Your task to perform on an android device: toggle notification dots Image 0: 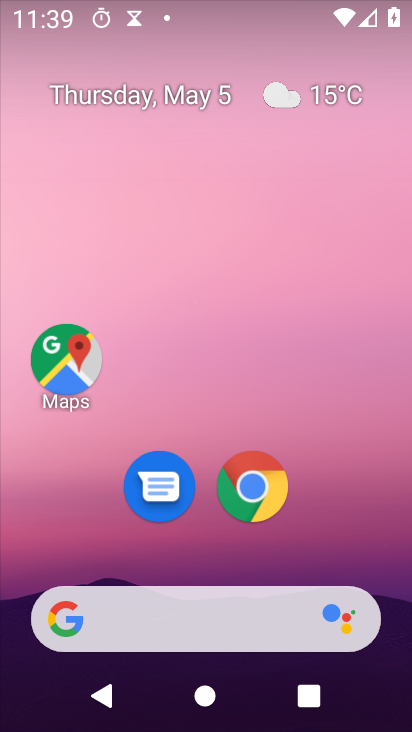
Step 0: drag from (366, 556) to (122, 84)
Your task to perform on an android device: toggle notification dots Image 1: 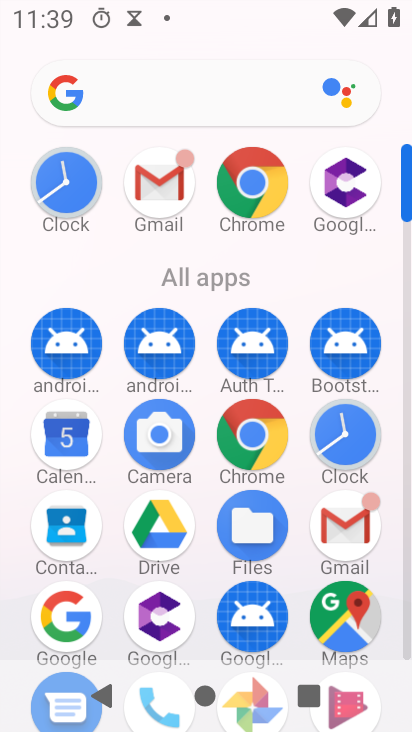
Step 1: drag from (280, 518) to (221, 67)
Your task to perform on an android device: toggle notification dots Image 2: 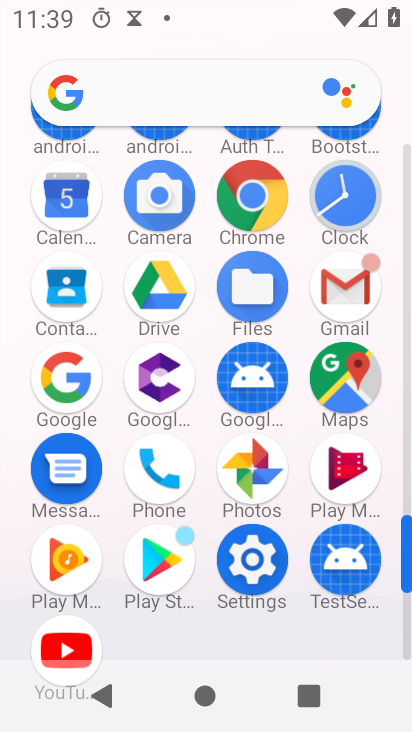
Step 2: drag from (293, 476) to (226, 134)
Your task to perform on an android device: toggle notification dots Image 3: 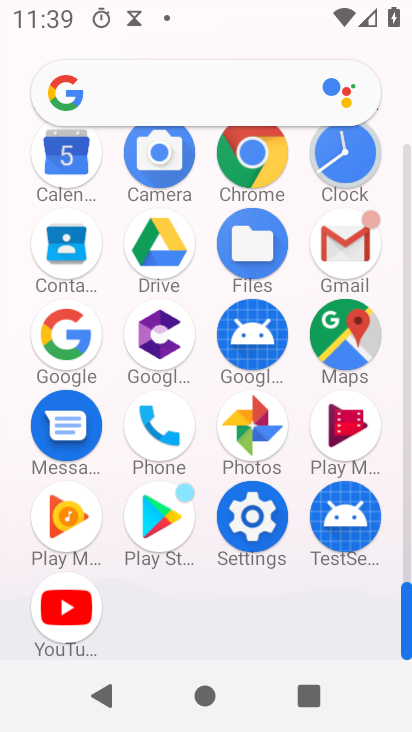
Step 3: click (262, 529)
Your task to perform on an android device: toggle notification dots Image 4: 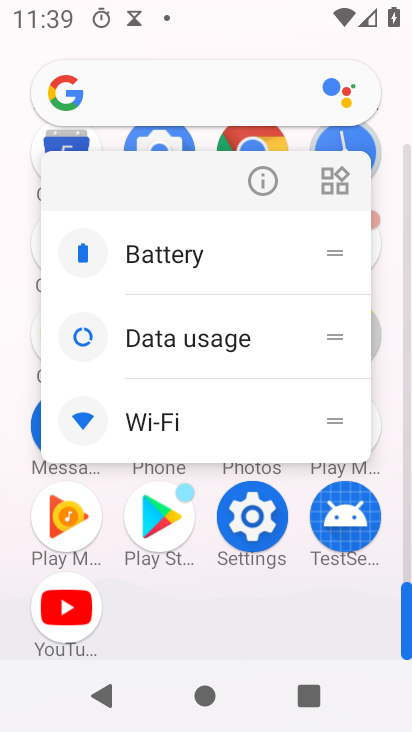
Step 4: click (253, 523)
Your task to perform on an android device: toggle notification dots Image 5: 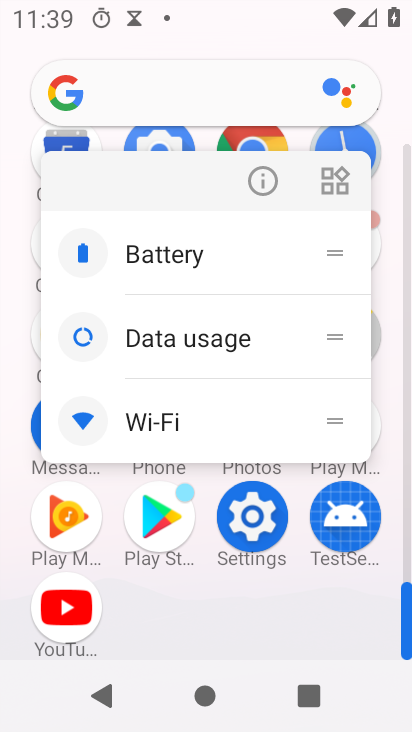
Step 5: click (253, 523)
Your task to perform on an android device: toggle notification dots Image 6: 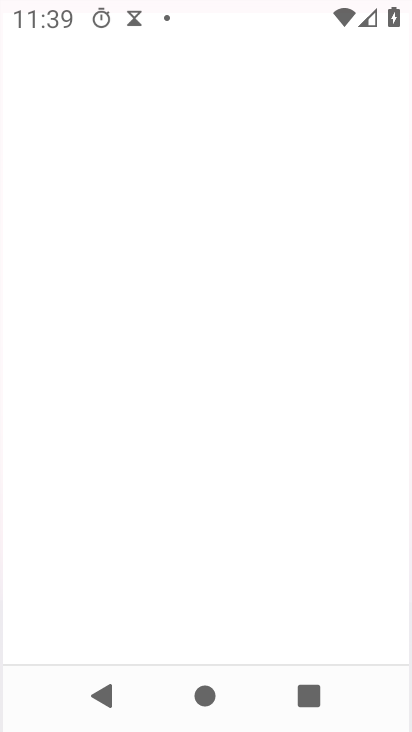
Step 6: click (252, 526)
Your task to perform on an android device: toggle notification dots Image 7: 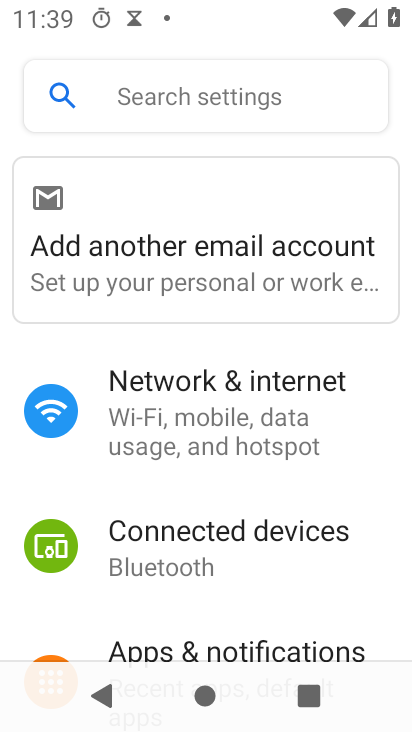
Step 7: click (182, 630)
Your task to perform on an android device: toggle notification dots Image 8: 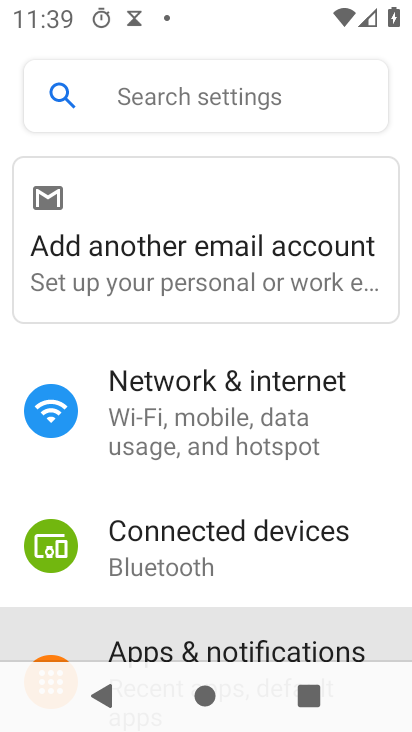
Step 8: click (191, 647)
Your task to perform on an android device: toggle notification dots Image 9: 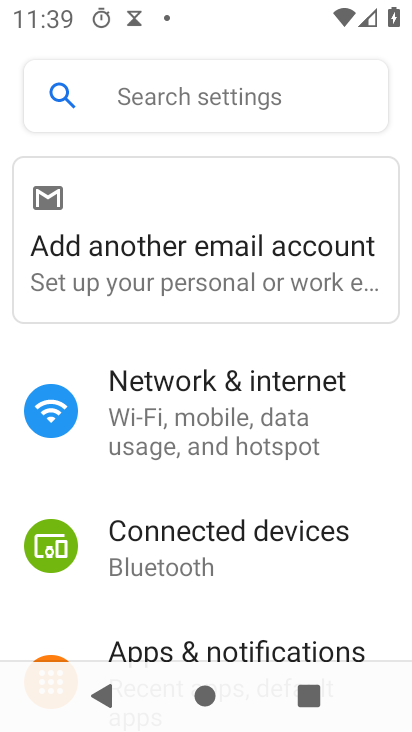
Step 9: drag from (272, 556) to (197, 177)
Your task to perform on an android device: toggle notification dots Image 10: 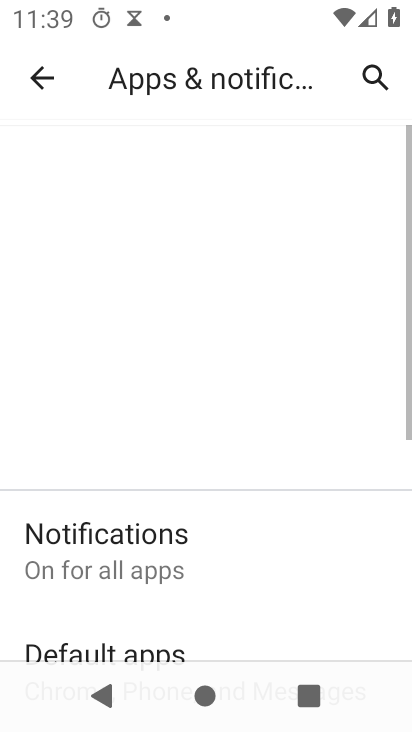
Step 10: drag from (221, 566) to (109, 192)
Your task to perform on an android device: toggle notification dots Image 11: 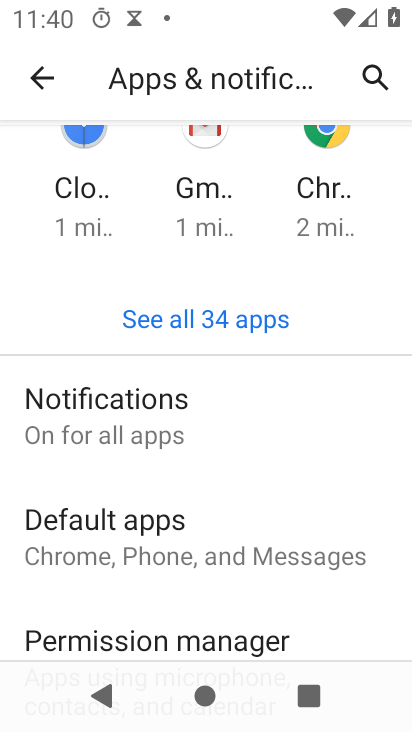
Step 11: drag from (250, 547) to (55, 217)
Your task to perform on an android device: toggle notification dots Image 12: 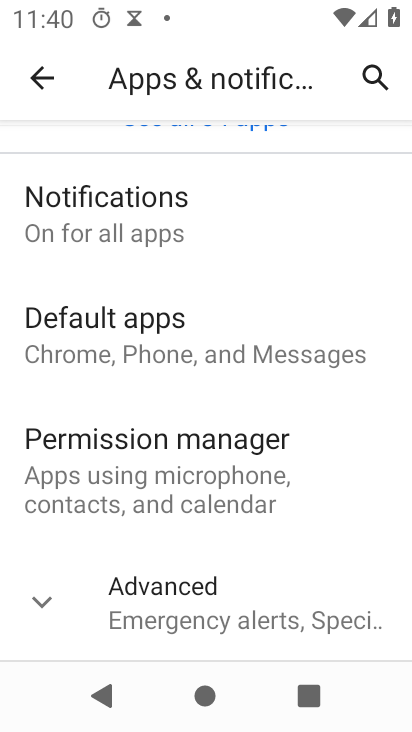
Step 12: drag from (246, 523) to (138, 126)
Your task to perform on an android device: toggle notification dots Image 13: 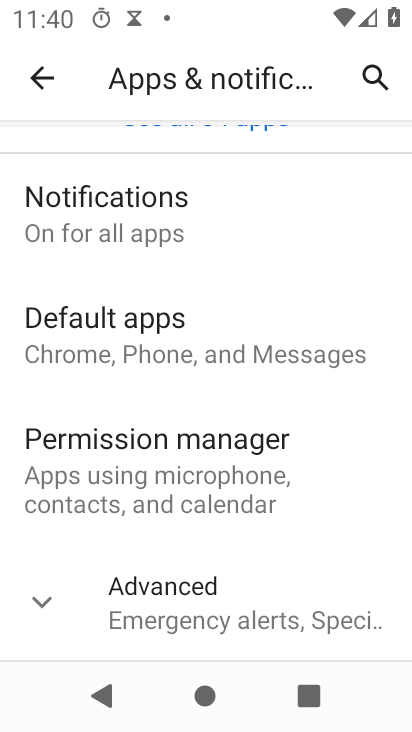
Step 13: click (181, 602)
Your task to perform on an android device: toggle notification dots Image 14: 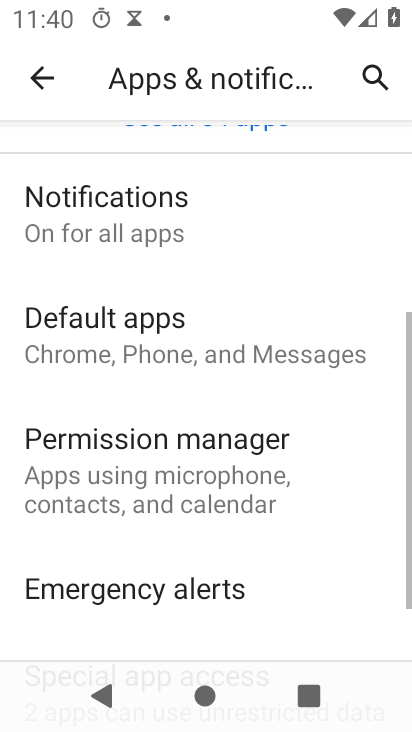
Step 14: drag from (255, 593) to (138, 141)
Your task to perform on an android device: toggle notification dots Image 15: 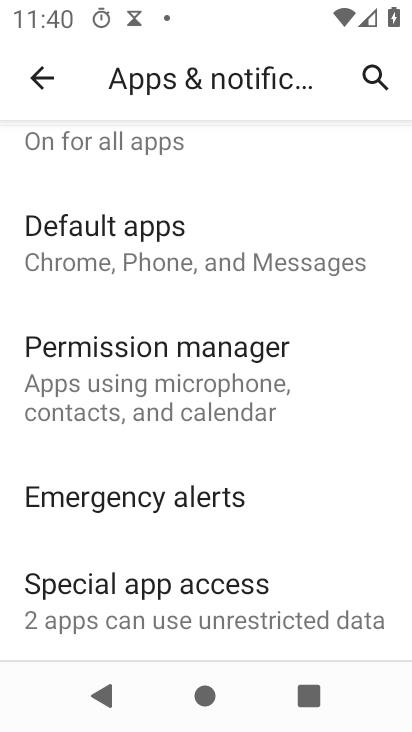
Step 15: drag from (81, 391) to (44, 653)
Your task to perform on an android device: toggle notification dots Image 16: 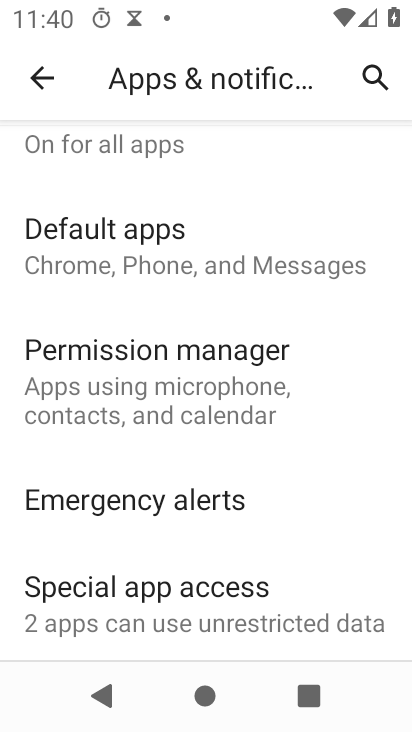
Step 16: drag from (196, 257) to (201, 528)
Your task to perform on an android device: toggle notification dots Image 17: 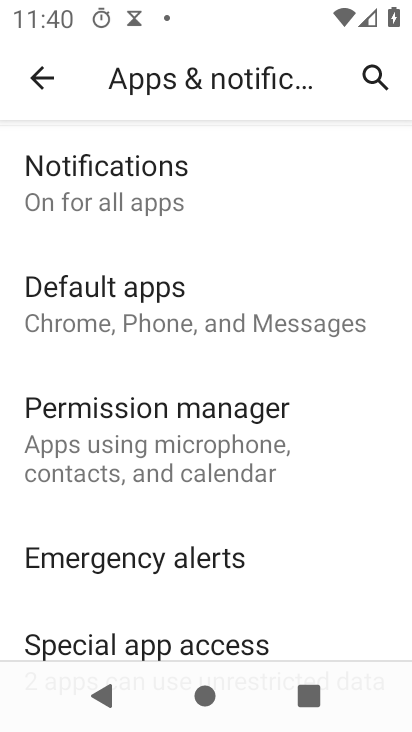
Step 17: click (114, 192)
Your task to perform on an android device: toggle notification dots Image 18: 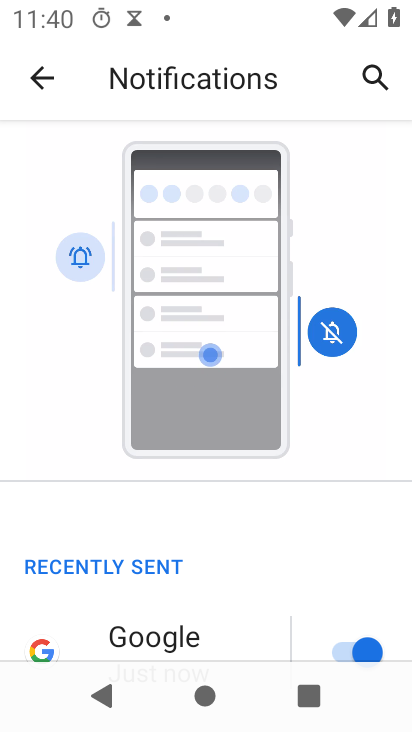
Step 18: drag from (232, 582) to (101, 154)
Your task to perform on an android device: toggle notification dots Image 19: 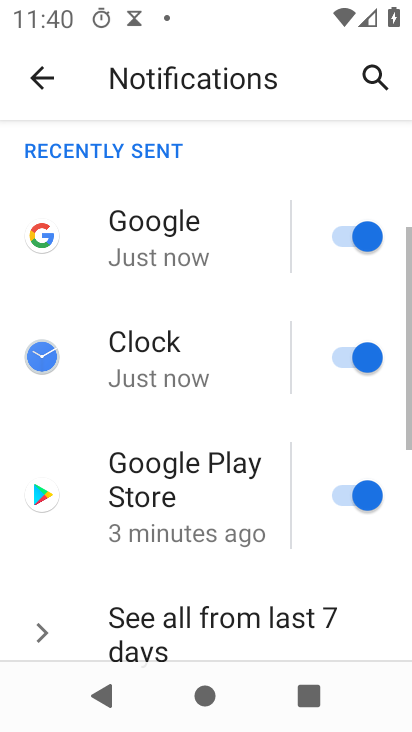
Step 19: drag from (286, 559) to (194, 118)
Your task to perform on an android device: toggle notification dots Image 20: 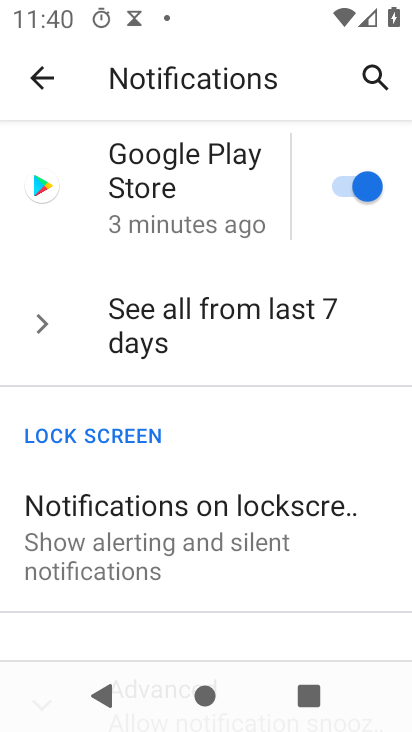
Step 20: drag from (204, 403) to (223, 107)
Your task to perform on an android device: toggle notification dots Image 21: 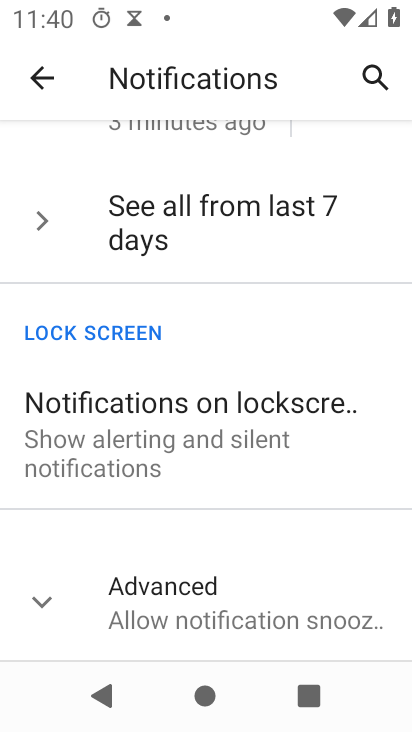
Step 21: click (193, 603)
Your task to perform on an android device: toggle notification dots Image 22: 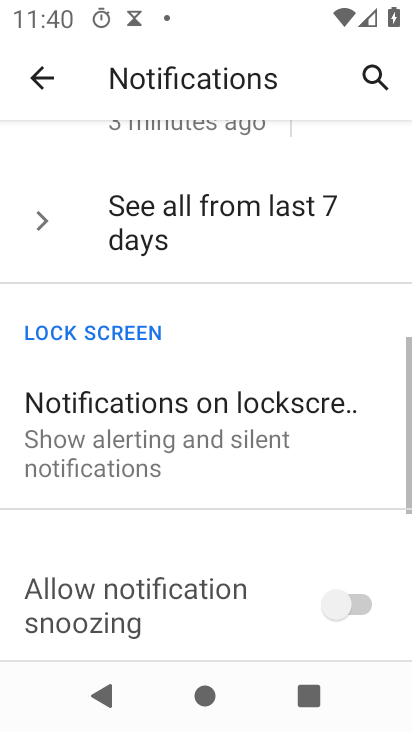
Step 22: click (193, 603)
Your task to perform on an android device: toggle notification dots Image 23: 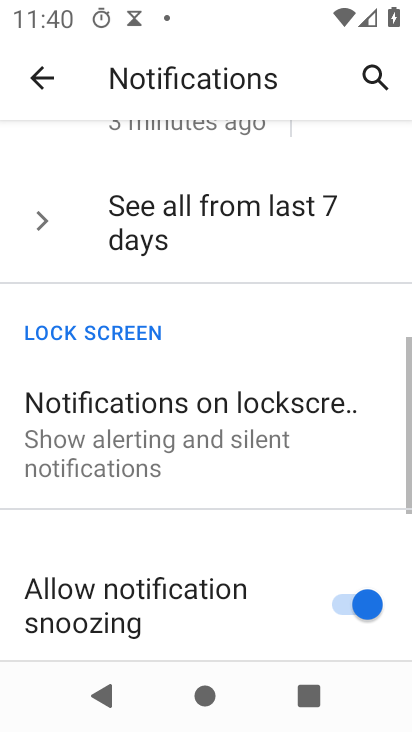
Step 23: drag from (265, 584) to (194, 133)
Your task to perform on an android device: toggle notification dots Image 24: 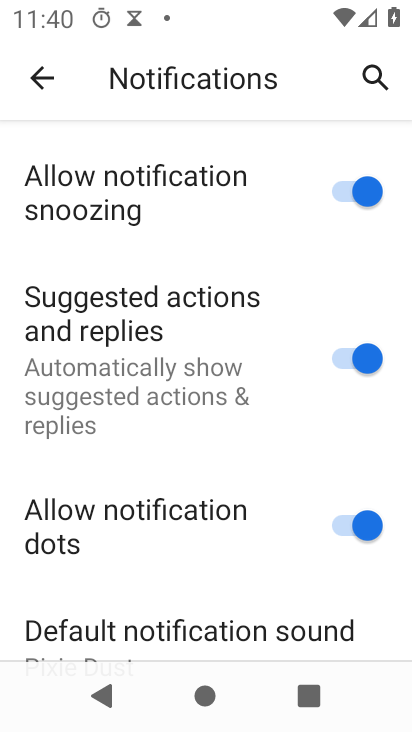
Step 24: click (351, 529)
Your task to perform on an android device: toggle notification dots Image 25: 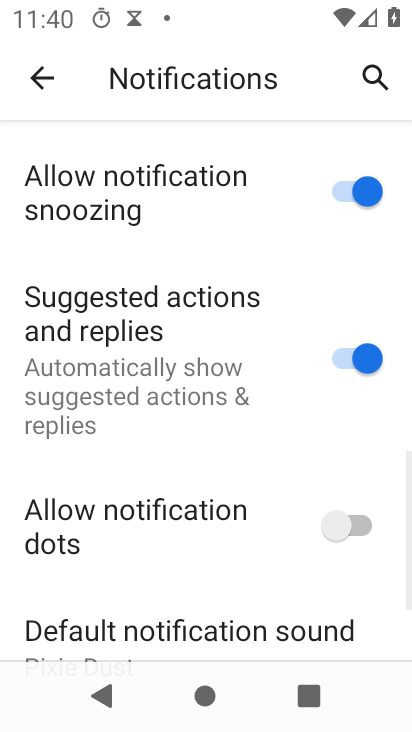
Step 25: task complete